Your task to perform on an android device: Open the Play Movies app and select the watchlist tab. Image 0: 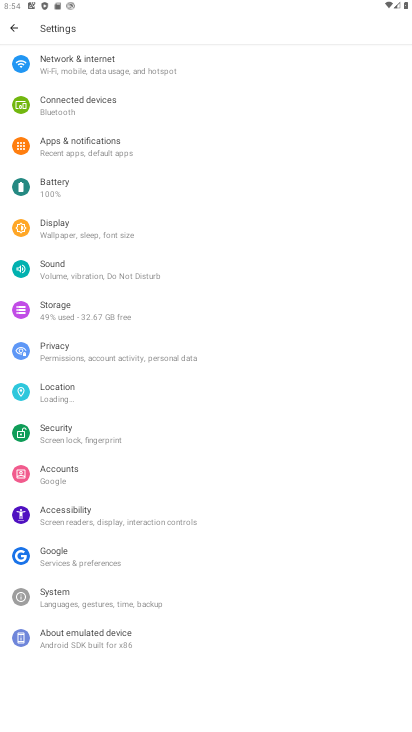
Step 0: press home button
Your task to perform on an android device: Open the Play Movies app and select the watchlist tab. Image 1: 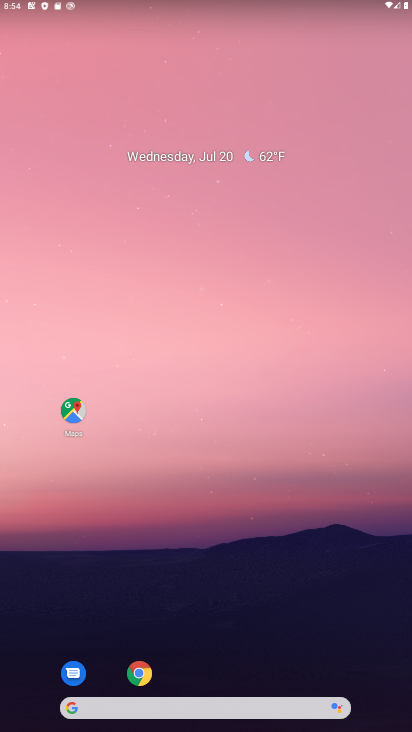
Step 1: drag from (389, 694) to (368, 77)
Your task to perform on an android device: Open the Play Movies app and select the watchlist tab. Image 2: 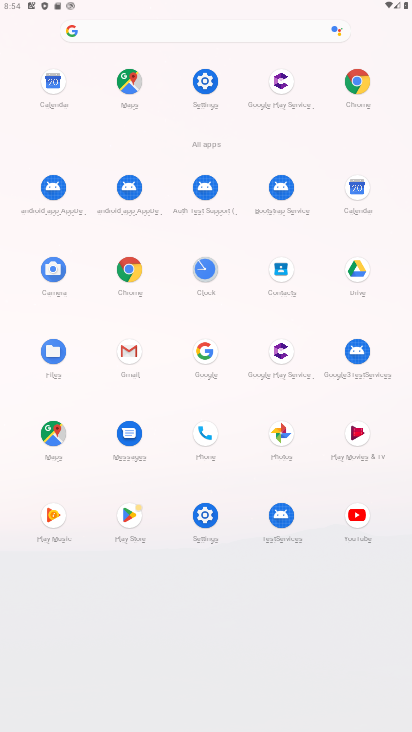
Step 2: click (340, 442)
Your task to perform on an android device: Open the Play Movies app and select the watchlist tab. Image 3: 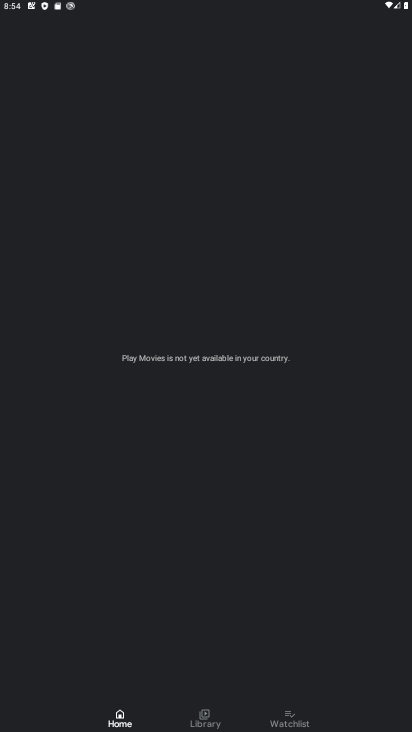
Step 3: click (277, 724)
Your task to perform on an android device: Open the Play Movies app and select the watchlist tab. Image 4: 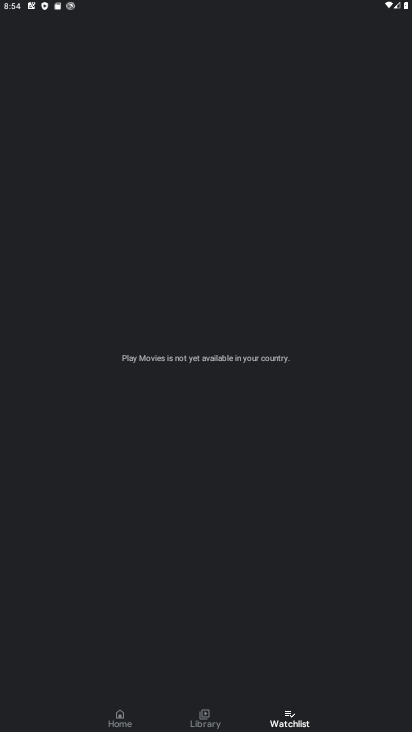
Step 4: task complete